Your task to perform on an android device: turn off notifications in google photos Image 0: 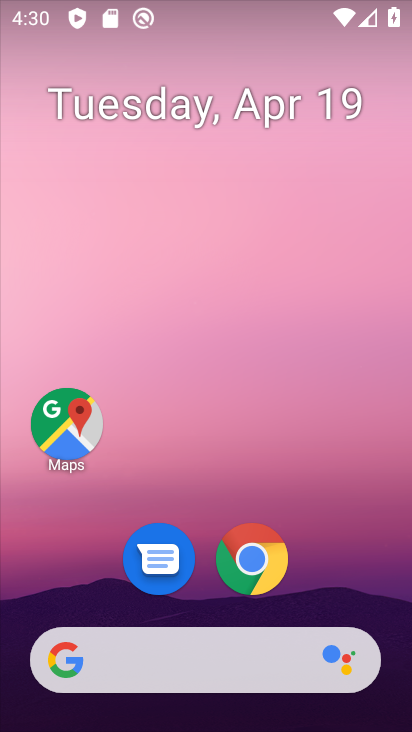
Step 0: drag from (362, 561) to (147, 21)
Your task to perform on an android device: turn off notifications in google photos Image 1: 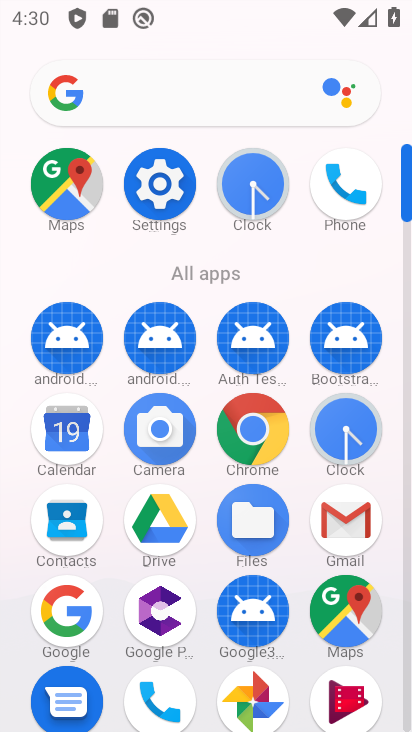
Step 1: click (247, 676)
Your task to perform on an android device: turn off notifications in google photos Image 2: 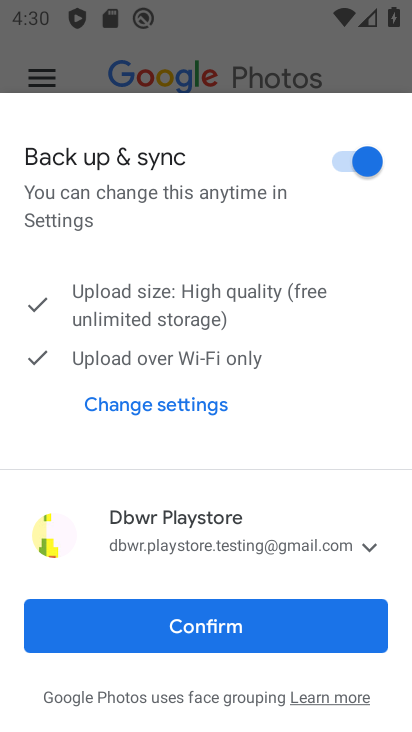
Step 2: click (247, 618)
Your task to perform on an android device: turn off notifications in google photos Image 3: 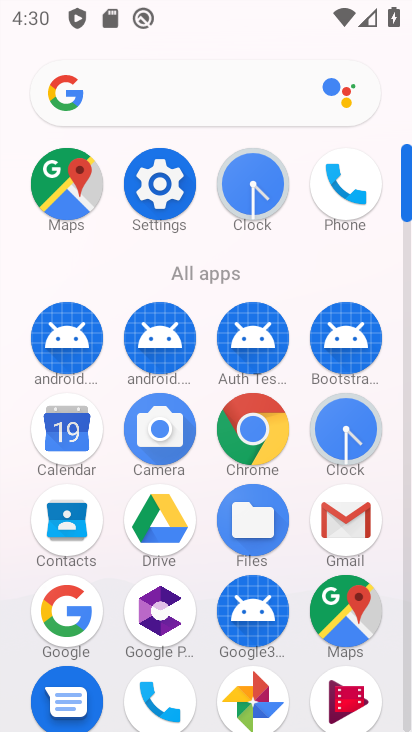
Step 3: click (280, 695)
Your task to perform on an android device: turn off notifications in google photos Image 4: 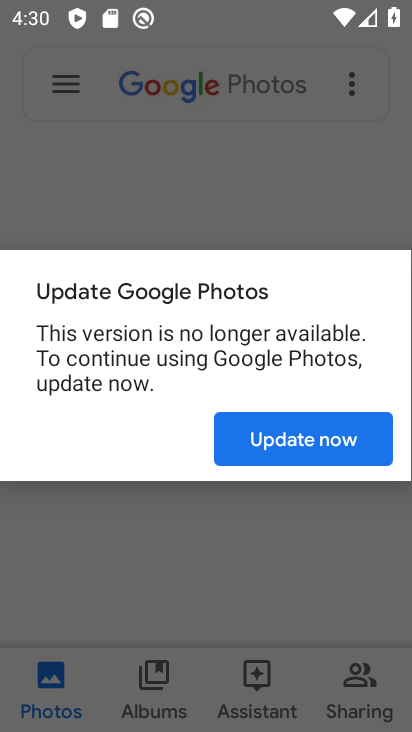
Step 4: click (323, 425)
Your task to perform on an android device: turn off notifications in google photos Image 5: 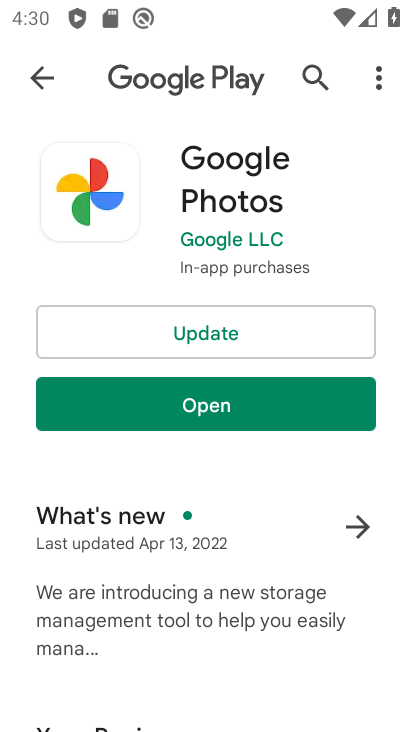
Step 5: click (271, 346)
Your task to perform on an android device: turn off notifications in google photos Image 6: 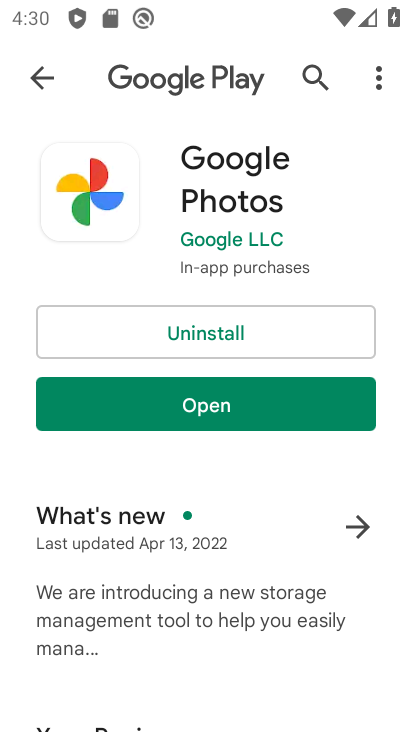
Step 6: click (263, 405)
Your task to perform on an android device: turn off notifications in google photos Image 7: 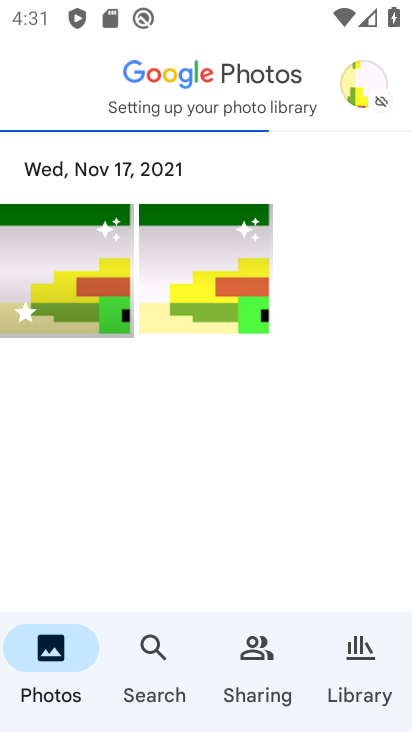
Step 7: click (355, 104)
Your task to perform on an android device: turn off notifications in google photos Image 8: 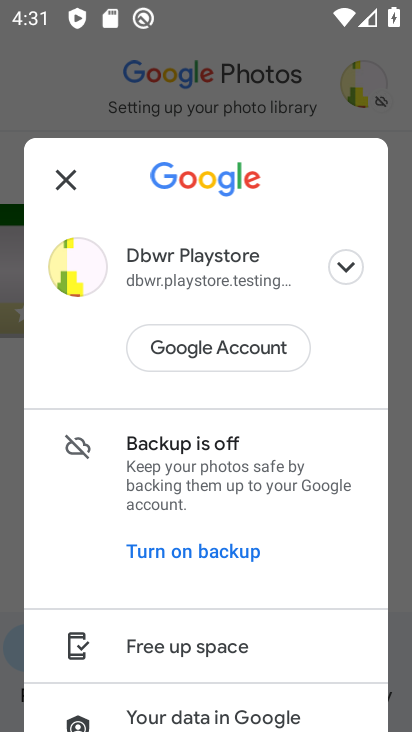
Step 8: drag from (210, 561) to (108, 153)
Your task to perform on an android device: turn off notifications in google photos Image 9: 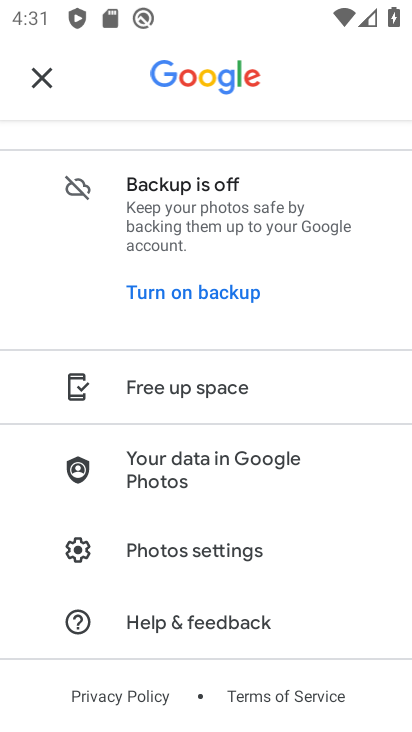
Step 9: click (173, 547)
Your task to perform on an android device: turn off notifications in google photos Image 10: 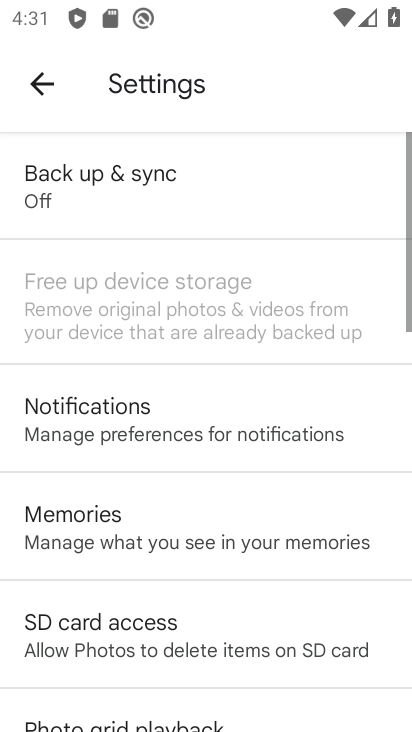
Step 10: task complete